Your task to perform on an android device: toggle notifications settings in the gmail app Image 0: 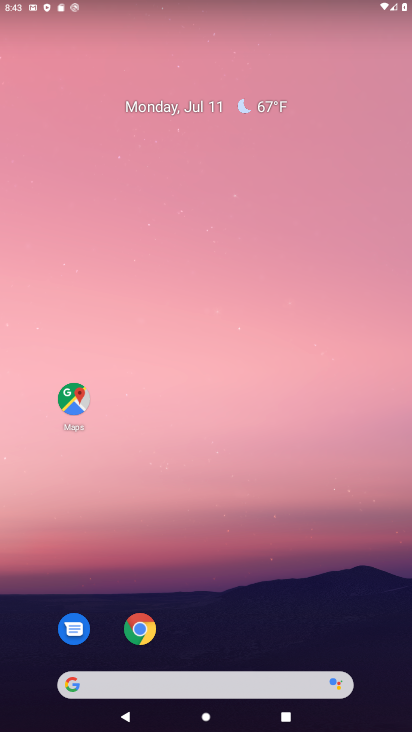
Step 0: drag from (278, 607) to (235, 34)
Your task to perform on an android device: toggle notifications settings in the gmail app Image 1: 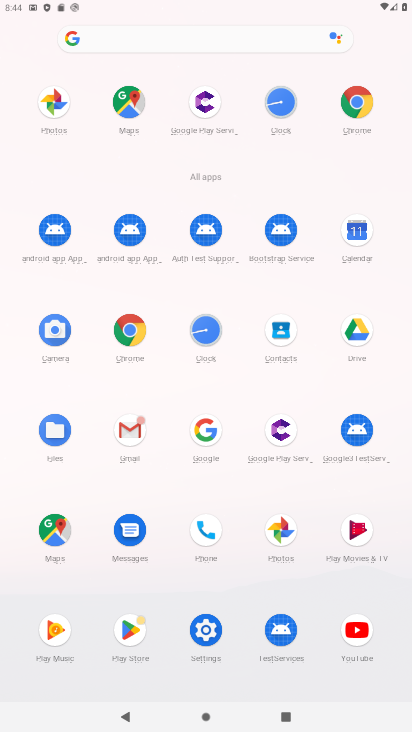
Step 1: click (126, 428)
Your task to perform on an android device: toggle notifications settings in the gmail app Image 2: 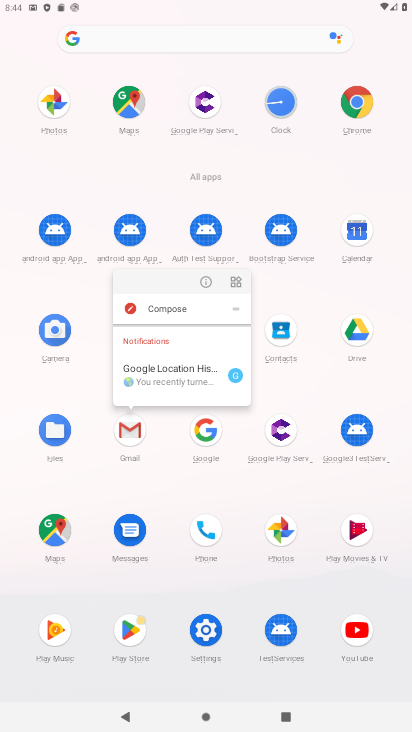
Step 2: click (202, 274)
Your task to perform on an android device: toggle notifications settings in the gmail app Image 3: 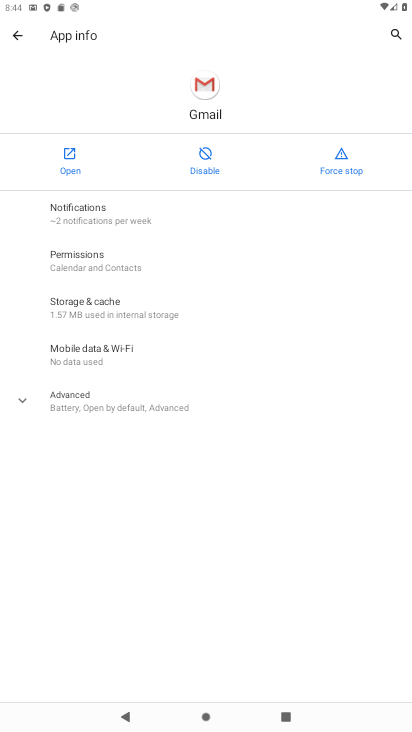
Step 3: click (77, 203)
Your task to perform on an android device: toggle notifications settings in the gmail app Image 4: 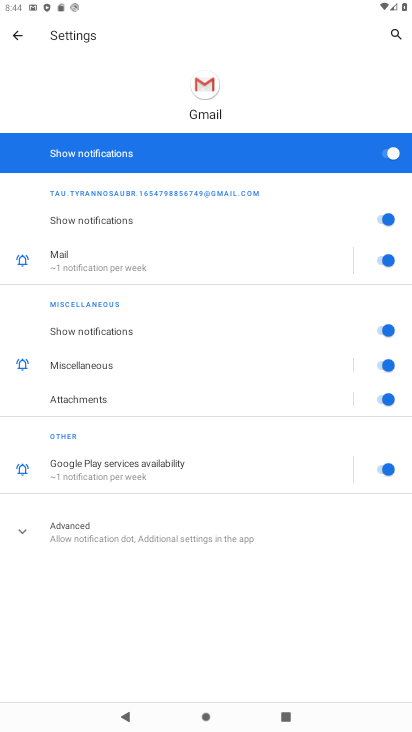
Step 4: click (397, 144)
Your task to perform on an android device: toggle notifications settings in the gmail app Image 5: 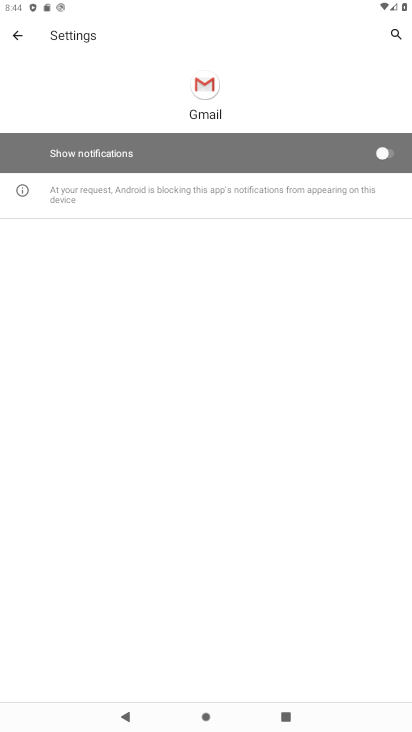
Step 5: task complete